Your task to perform on an android device: remove spam from my inbox in the gmail app Image 0: 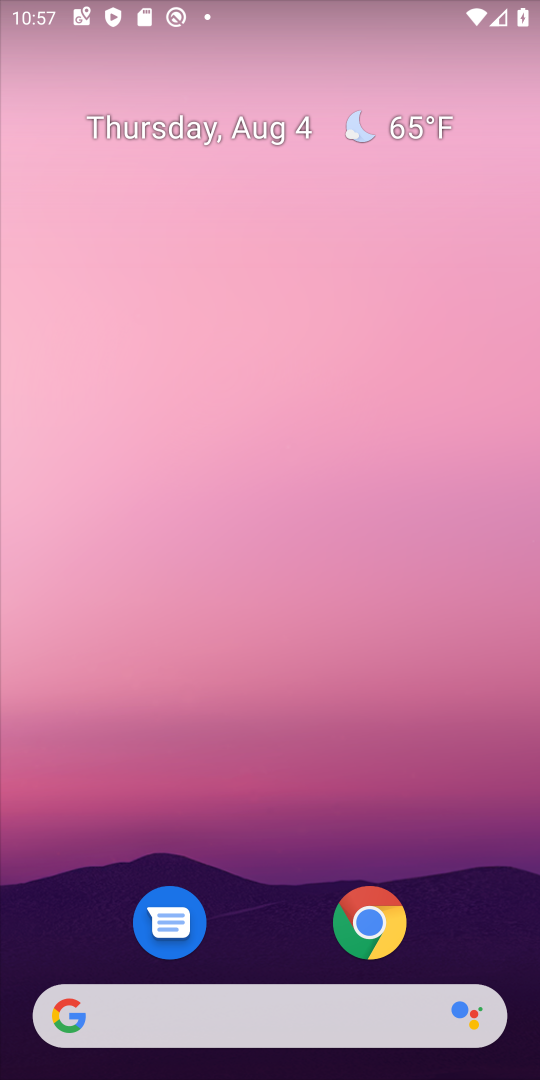
Step 0: drag from (270, 947) to (289, 346)
Your task to perform on an android device: remove spam from my inbox in the gmail app Image 1: 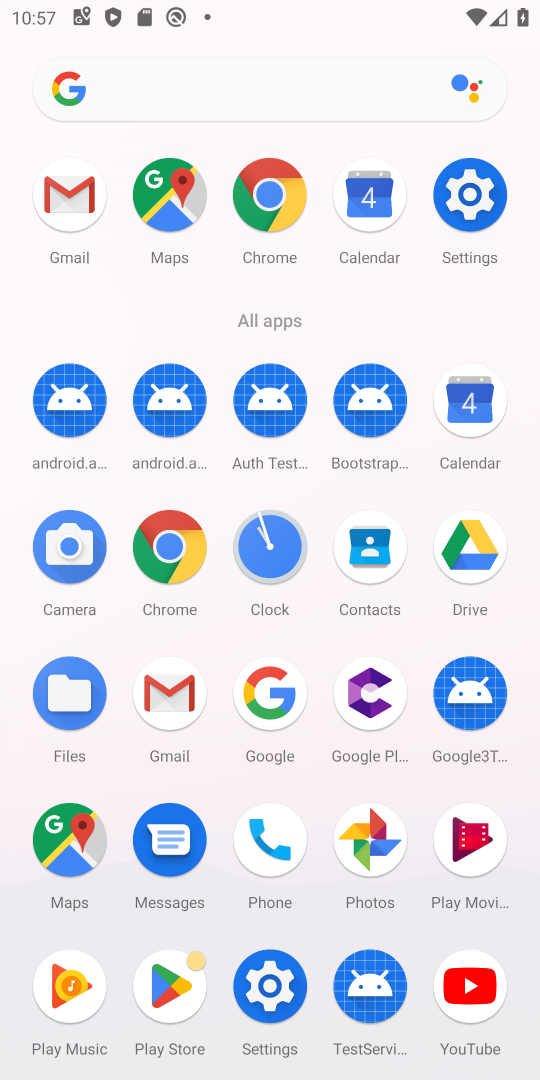
Step 1: click (74, 207)
Your task to perform on an android device: remove spam from my inbox in the gmail app Image 2: 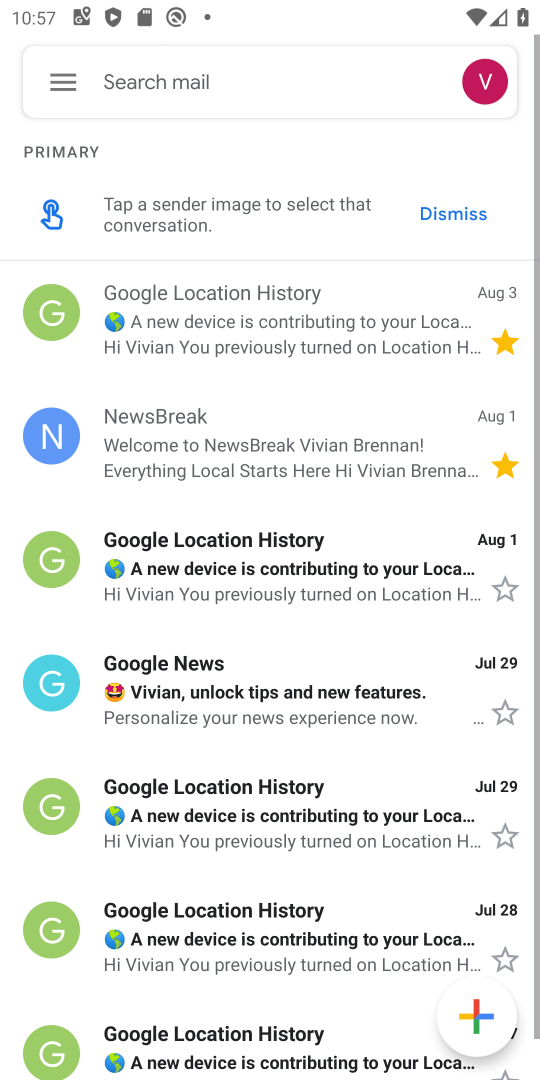
Step 2: click (65, 83)
Your task to perform on an android device: remove spam from my inbox in the gmail app Image 3: 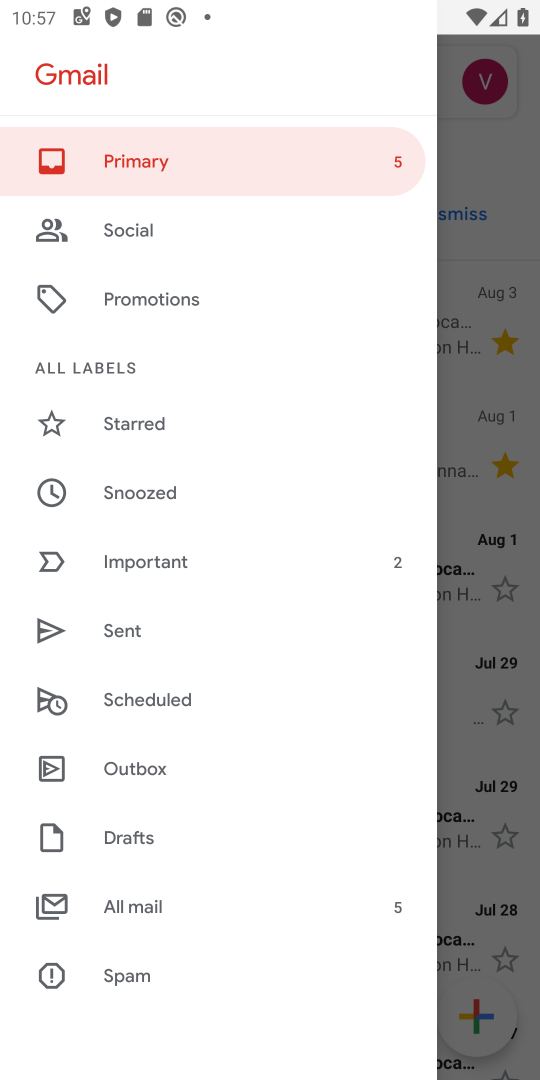
Step 3: click (119, 975)
Your task to perform on an android device: remove spam from my inbox in the gmail app Image 4: 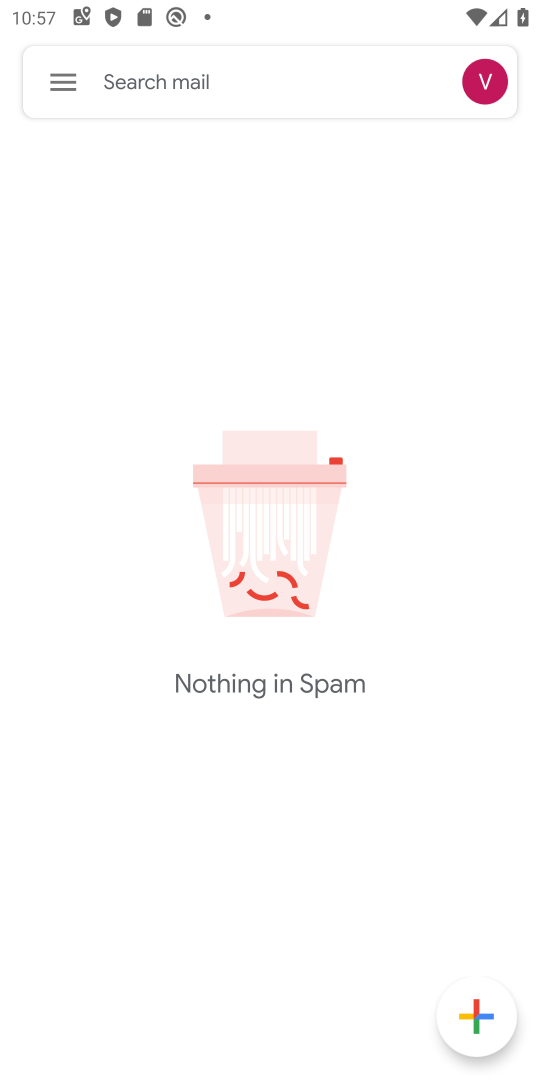
Step 4: task complete